Your task to perform on an android device: change the clock display to digital Image 0: 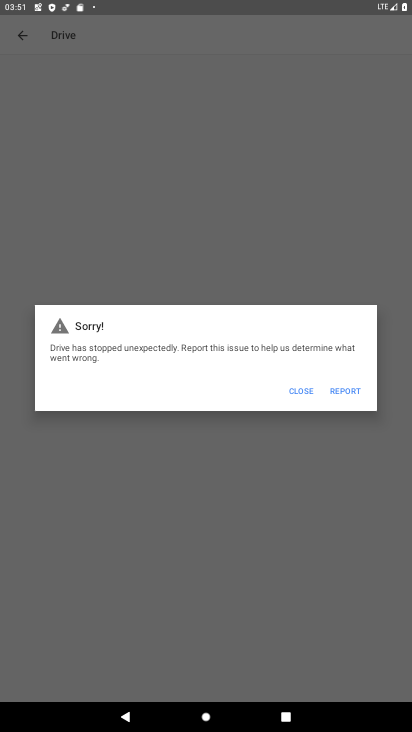
Step 0: press home button
Your task to perform on an android device: change the clock display to digital Image 1: 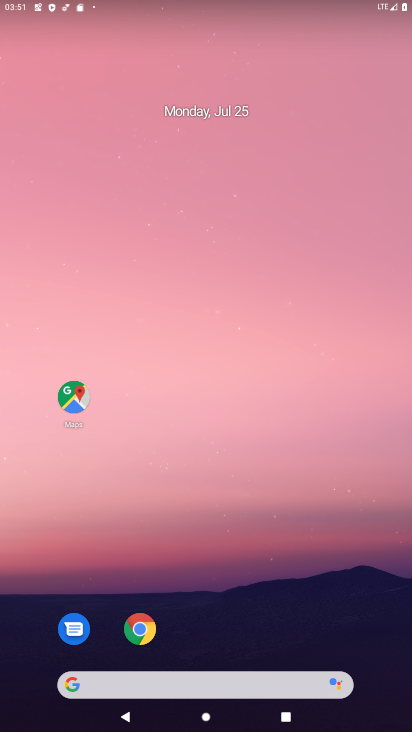
Step 1: drag from (261, 655) to (255, 4)
Your task to perform on an android device: change the clock display to digital Image 2: 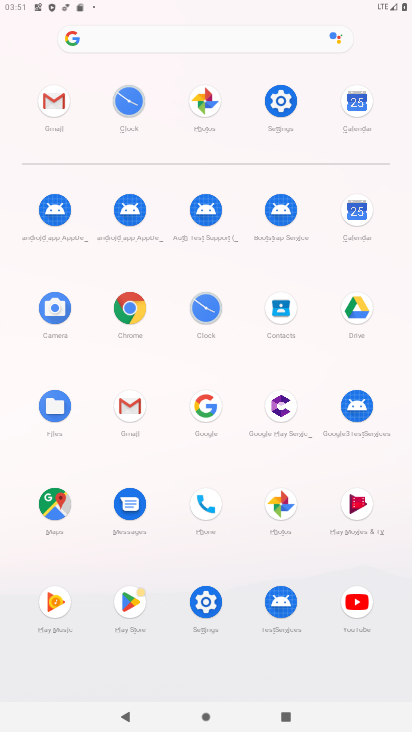
Step 2: click (113, 93)
Your task to perform on an android device: change the clock display to digital Image 3: 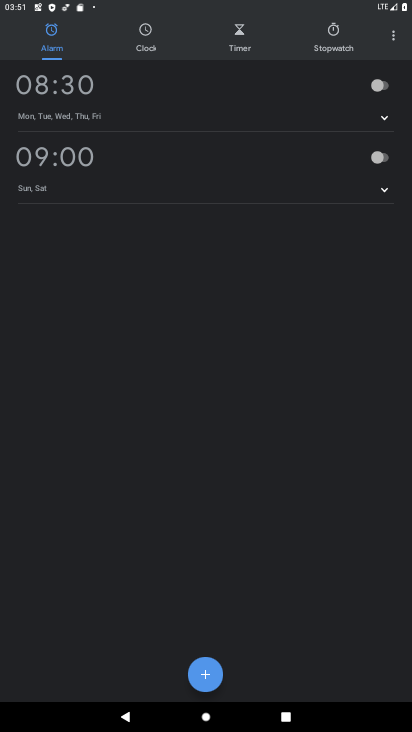
Step 3: click (396, 42)
Your task to perform on an android device: change the clock display to digital Image 4: 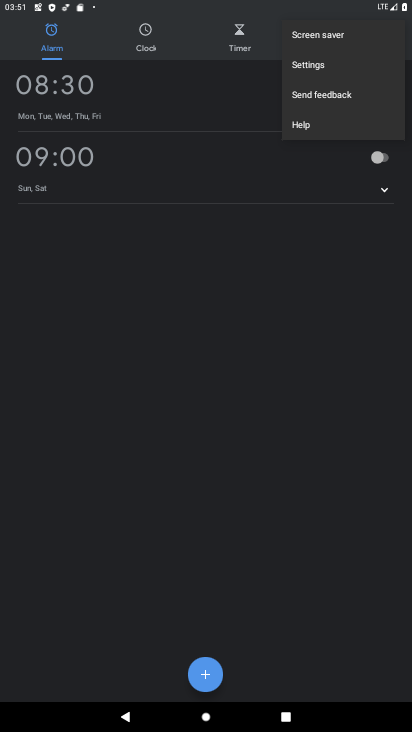
Step 4: click (312, 70)
Your task to perform on an android device: change the clock display to digital Image 5: 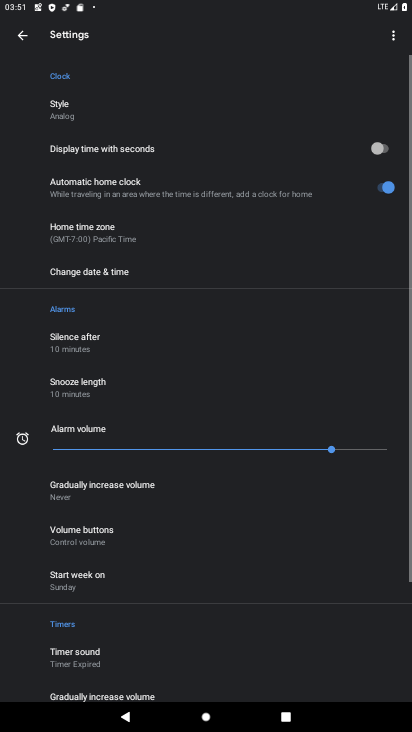
Step 5: click (60, 118)
Your task to perform on an android device: change the clock display to digital Image 6: 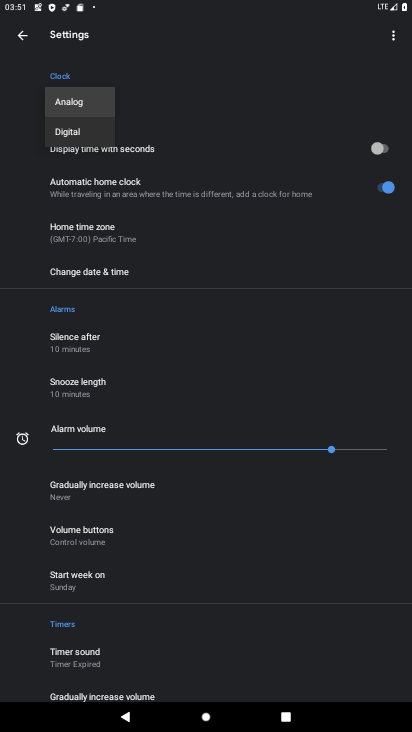
Step 6: click (64, 133)
Your task to perform on an android device: change the clock display to digital Image 7: 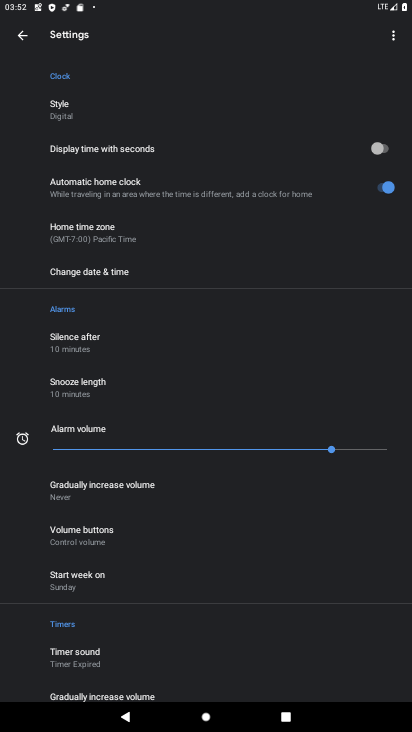
Step 7: task complete